Your task to perform on an android device: Turn off the flashlight Image 0: 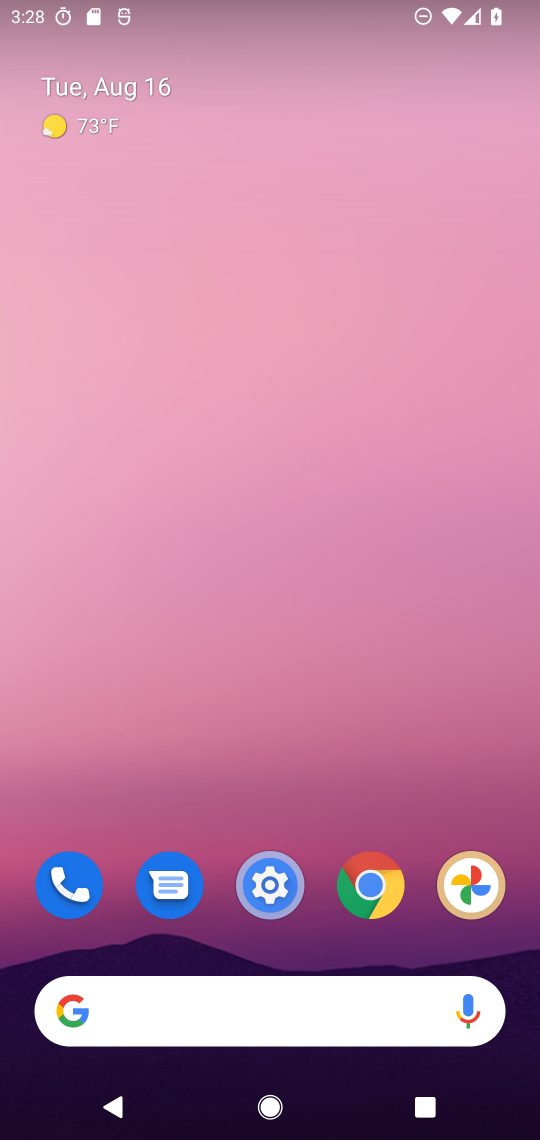
Step 0: drag from (166, 1056) to (205, 1012)
Your task to perform on an android device: Turn off the flashlight Image 1: 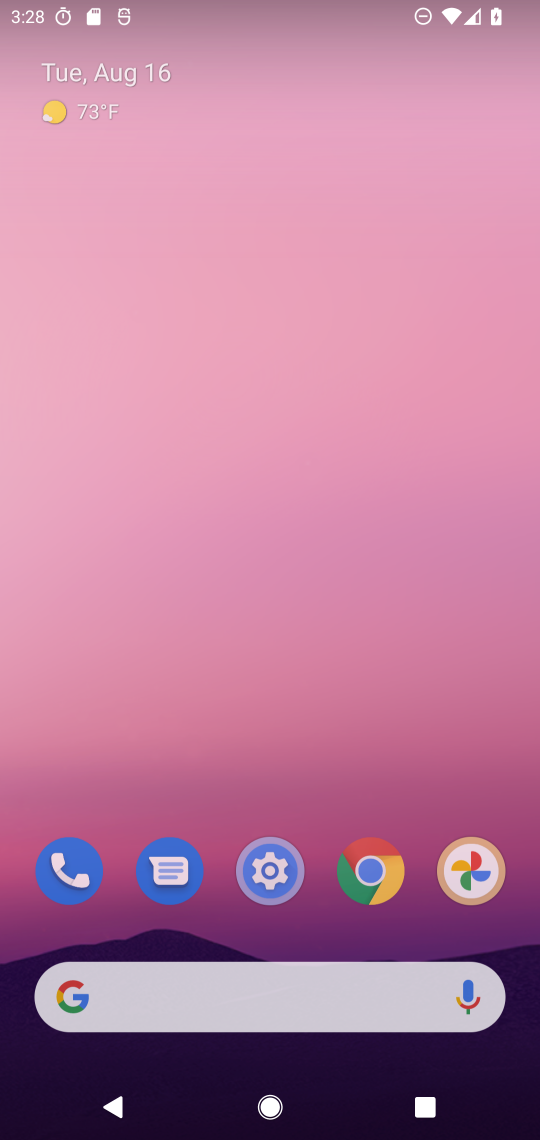
Step 1: drag from (271, 6) to (205, 899)
Your task to perform on an android device: Turn off the flashlight Image 2: 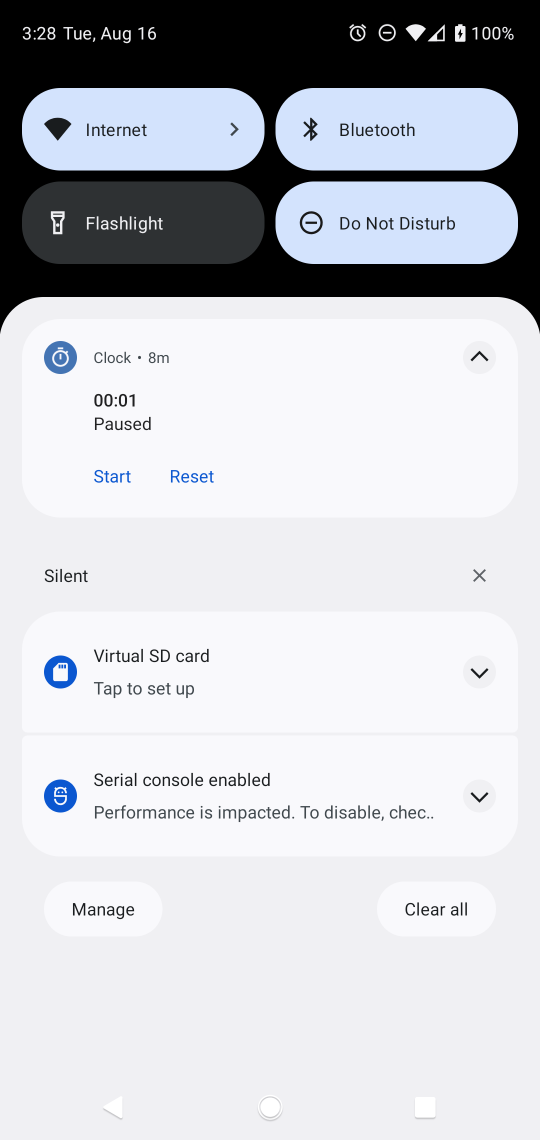
Step 2: click (130, 227)
Your task to perform on an android device: Turn off the flashlight Image 3: 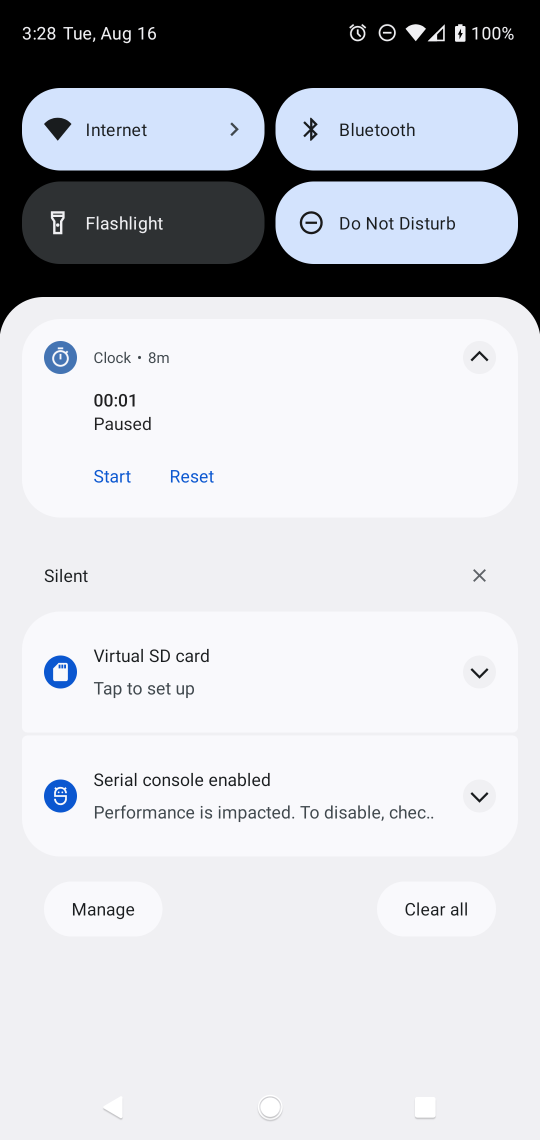
Step 3: click (161, 224)
Your task to perform on an android device: Turn off the flashlight Image 4: 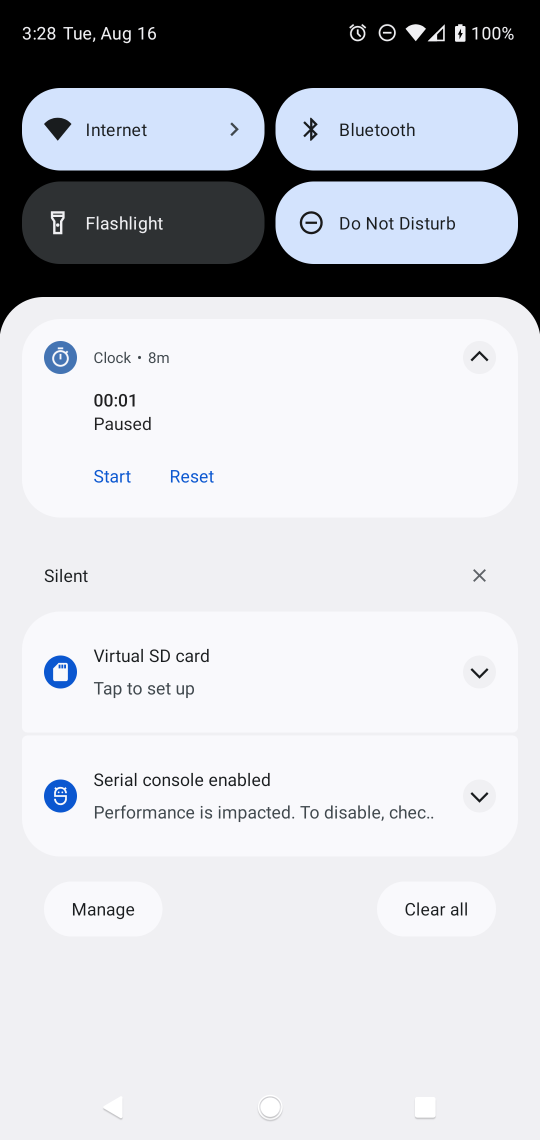
Step 4: click (127, 205)
Your task to perform on an android device: Turn off the flashlight Image 5: 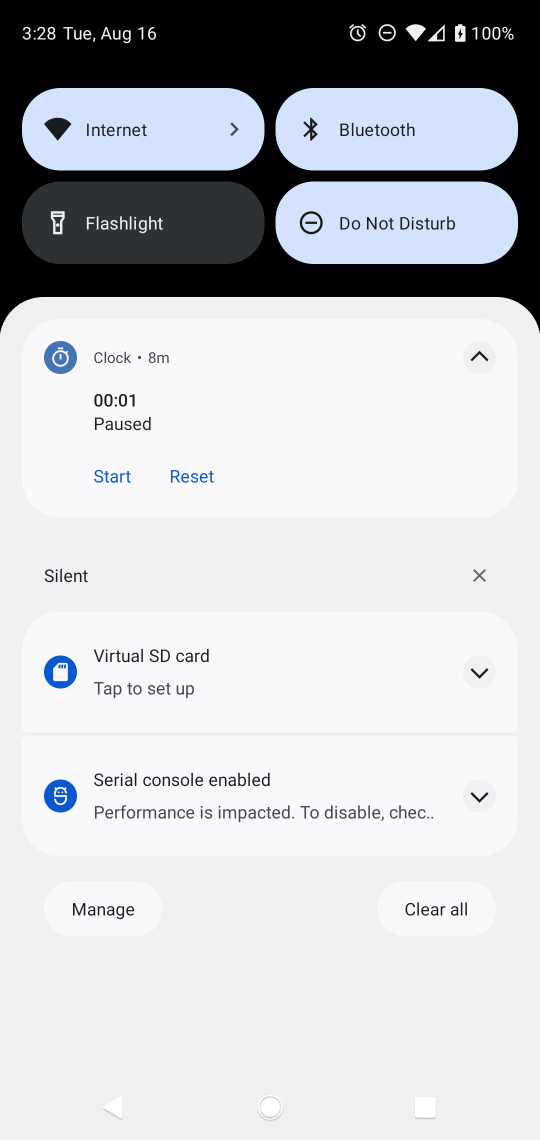
Step 5: click (127, 205)
Your task to perform on an android device: Turn off the flashlight Image 6: 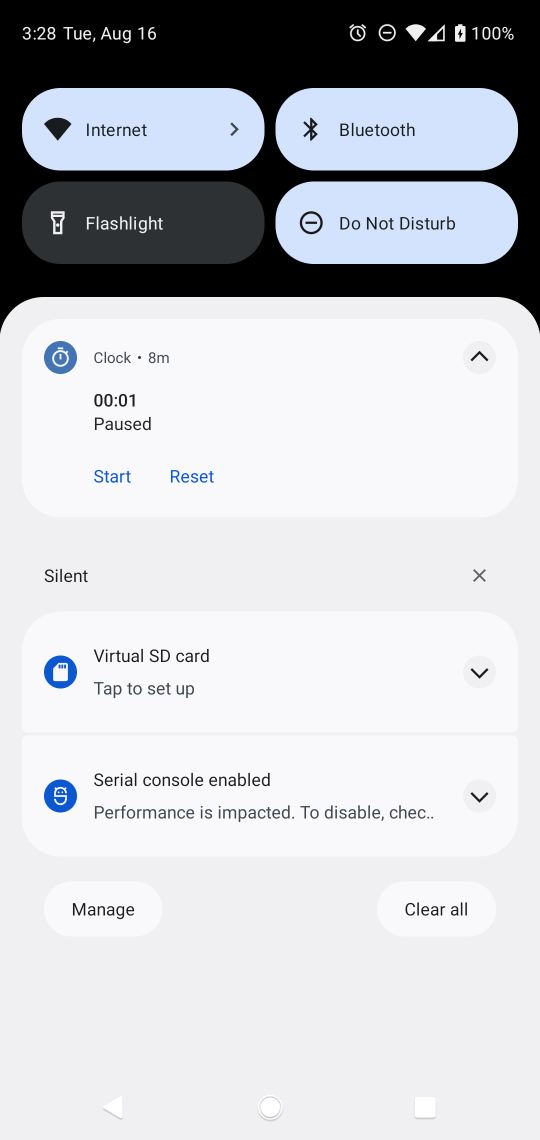
Step 6: click (119, 231)
Your task to perform on an android device: Turn off the flashlight Image 7: 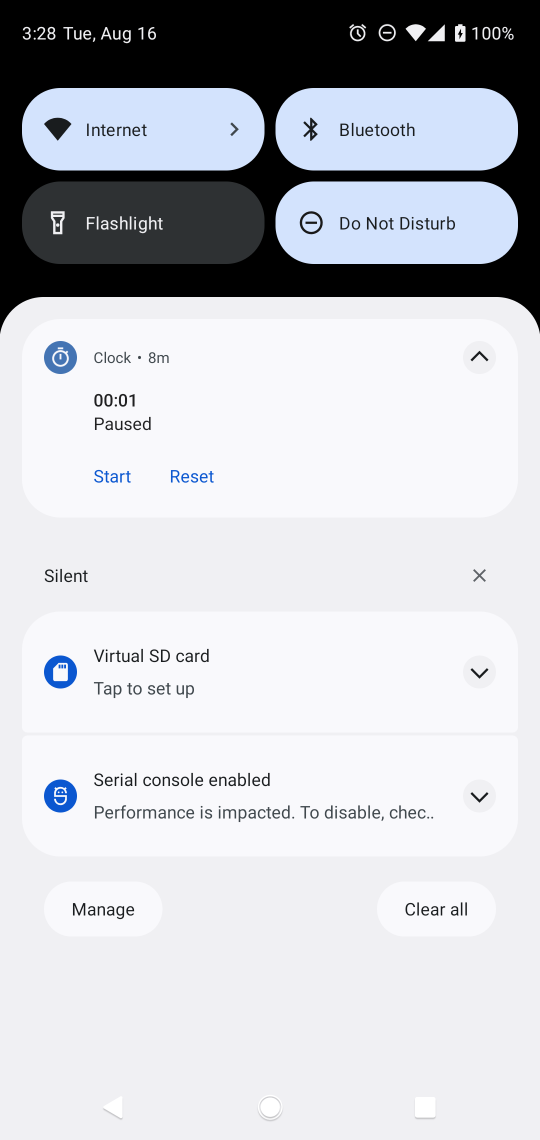
Step 7: task complete